Your task to perform on an android device: turn off notifications in google photos Image 0: 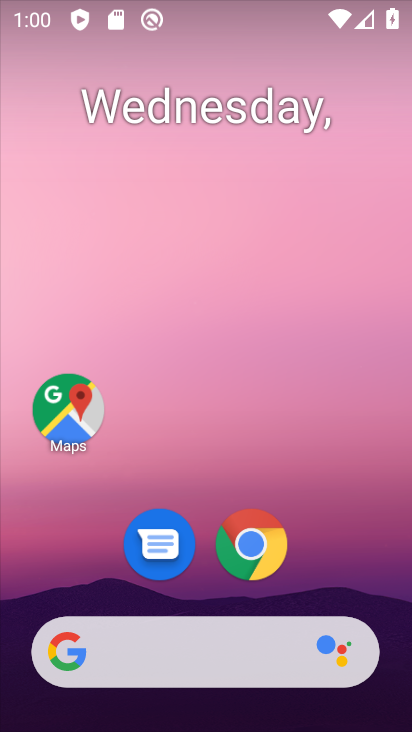
Step 0: drag from (333, 266) to (332, 101)
Your task to perform on an android device: turn off notifications in google photos Image 1: 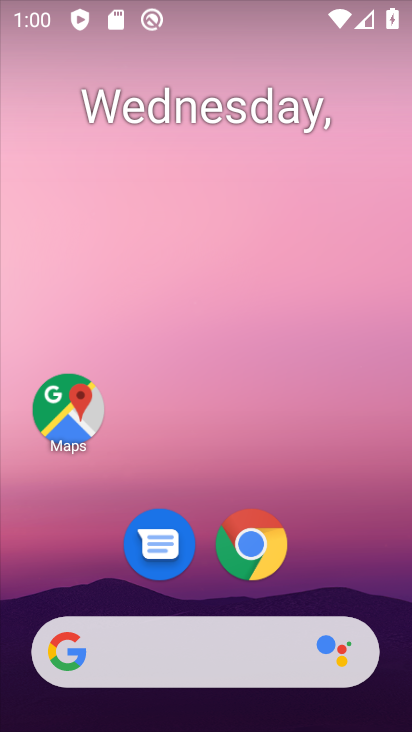
Step 1: drag from (313, 544) to (299, 41)
Your task to perform on an android device: turn off notifications in google photos Image 2: 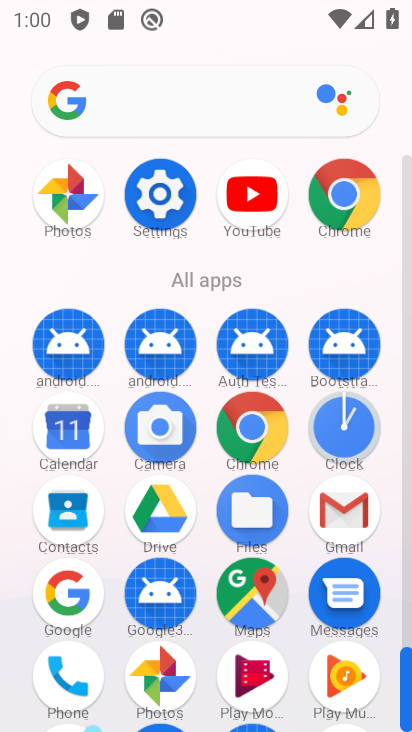
Step 2: click (152, 668)
Your task to perform on an android device: turn off notifications in google photos Image 3: 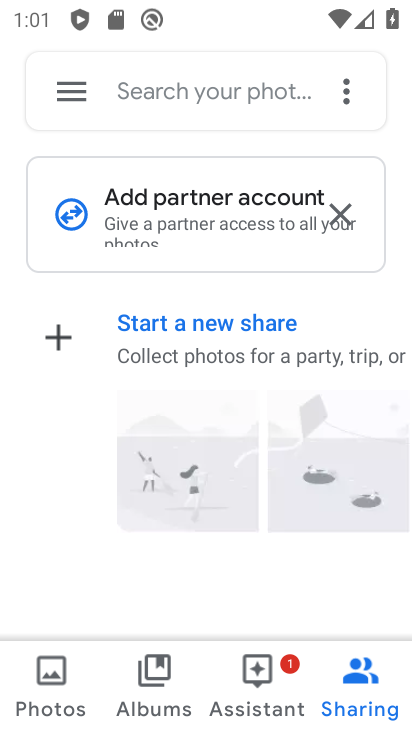
Step 3: click (58, 90)
Your task to perform on an android device: turn off notifications in google photos Image 4: 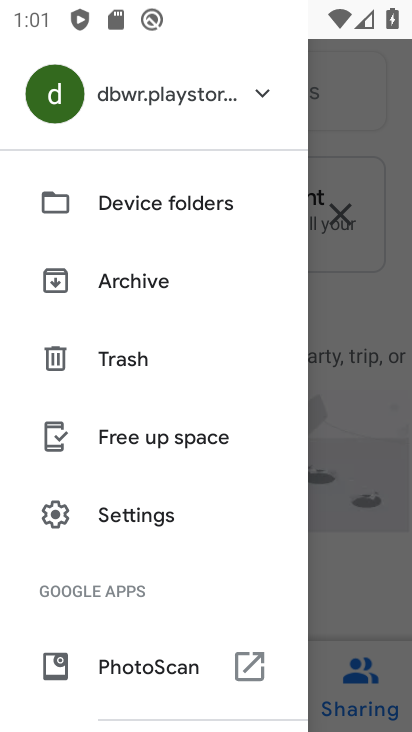
Step 4: click (143, 527)
Your task to perform on an android device: turn off notifications in google photos Image 5: 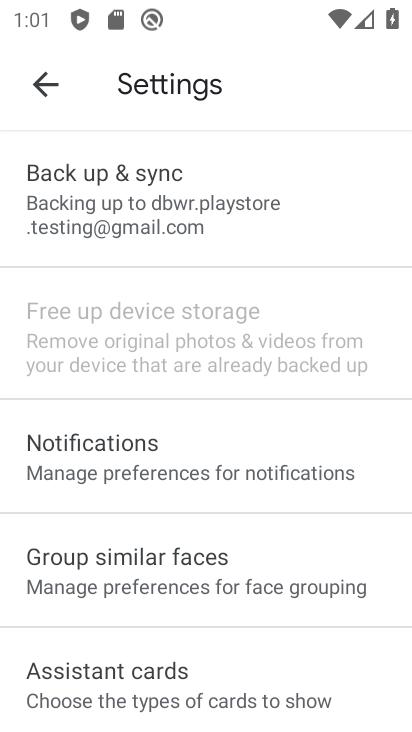
Step 5: click (150, 462)
Your task to perform on an android device: turn off notifications in google photos Image 6: 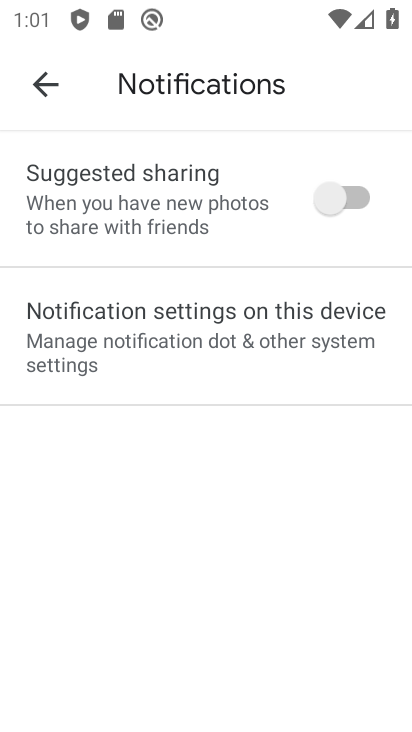
Step 6: click (222, 326)
Your task to perform on an android device: turn off notifications in google photos Image 7: 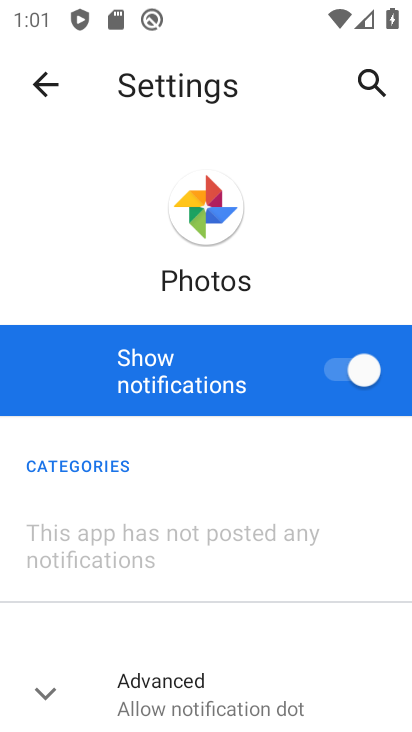
Step 7: click (344, 368)
Your task to perform on an android device: turn off notifications in google photos Image 8: 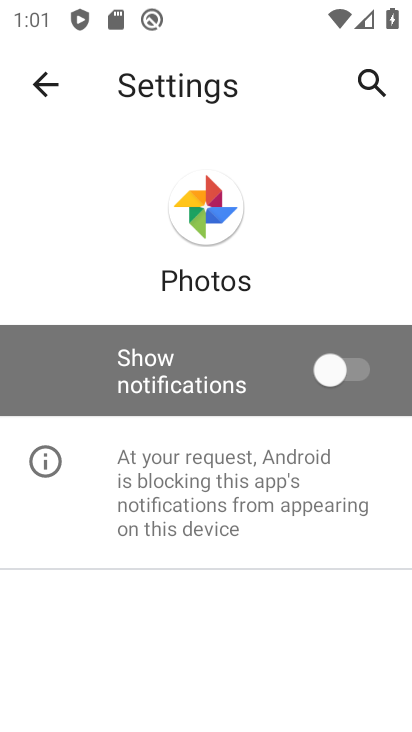
Step 8: task complete